Your task to perform on an android device: Go to battery settings Image 0: 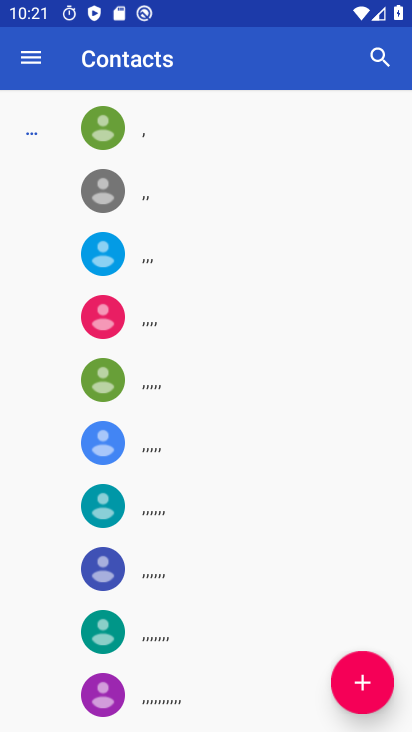
Step 0: press home button
Your task to perform on an android device: Go to battery settings Image 1: 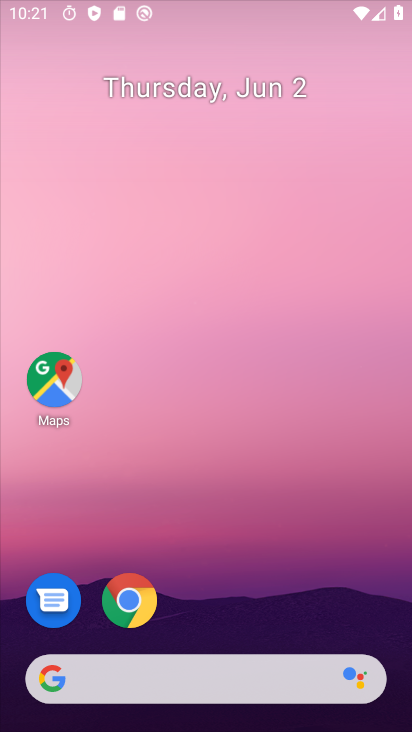
Step 1: drag from (244, 593) to (241, 35)
Your task to perform on an android device: Go to battery settings Image 2: 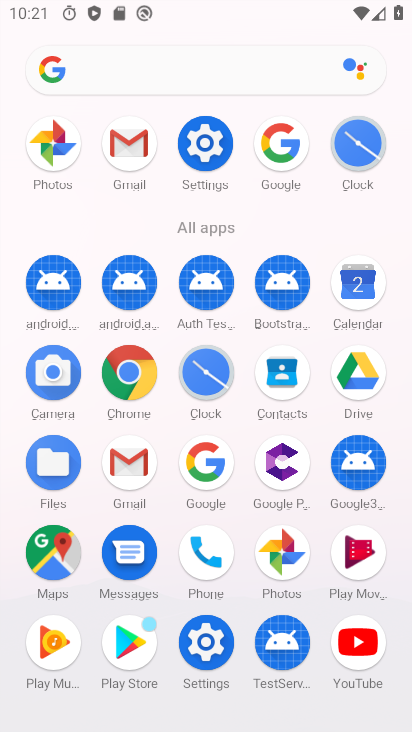
Step 2: click (207, 143)
Your task to perform on an android device: Go to battery settings Image 3: 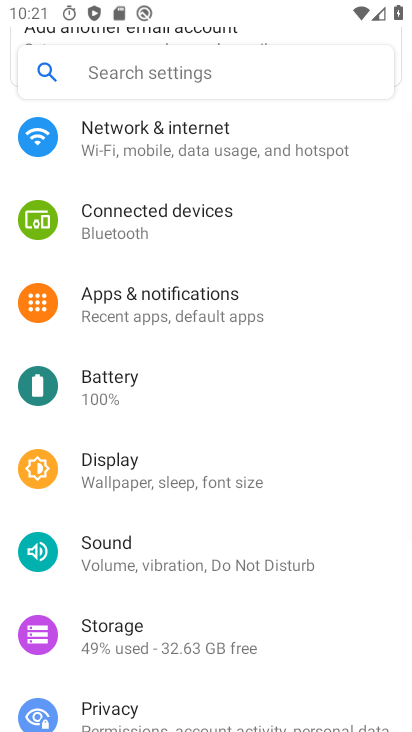
Step 3: click (163, 392)
Your task to perform on an android device: Go to battery settings Image 4: 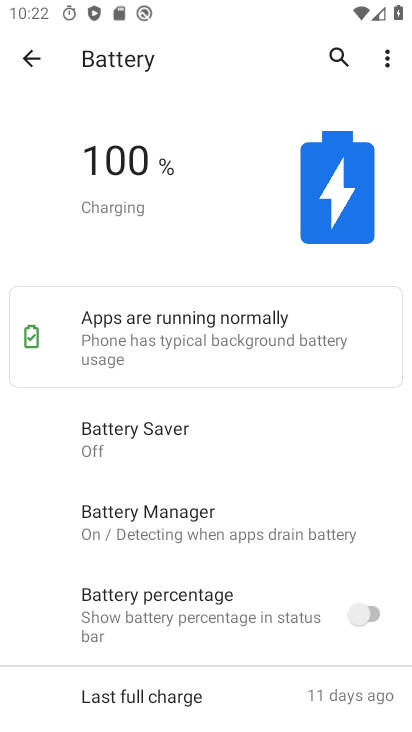
Step 4: task complete